Your task to perform on an android device: Open internet settings Image 0: 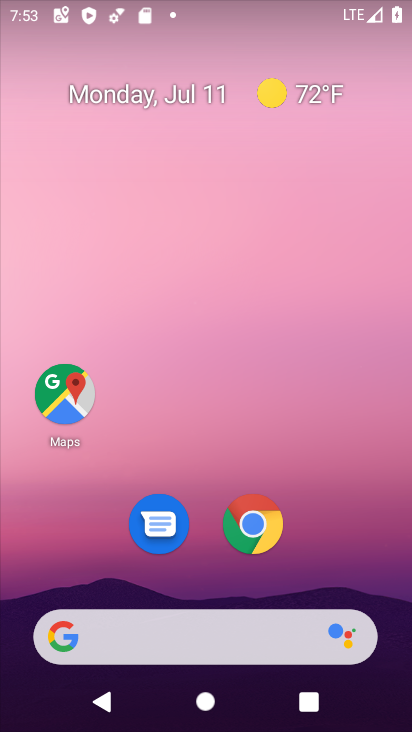
Step 0: drag from (321, 556) to (330, 28)
Your task to perform on an android device: Open internet settings Image 1: 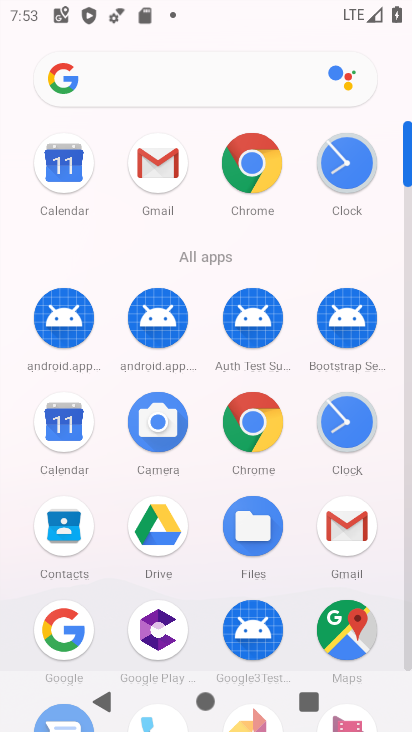
Step 1: drag from (196, 489) to (192, 281)
Your task to perform on an android device: Open internet settings Image 2: 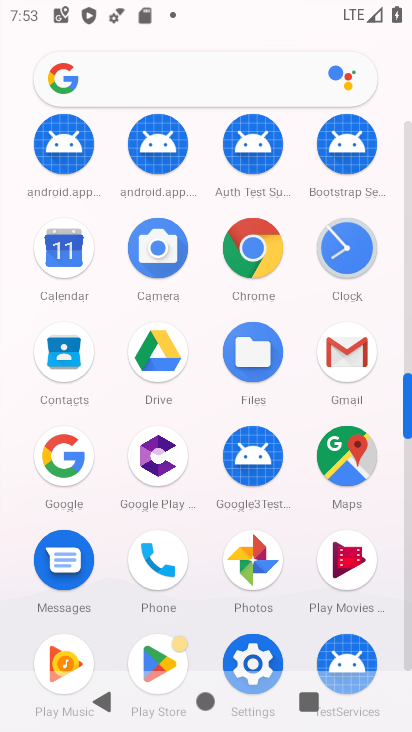
Step 2: click (244, 644)
Your task to perform on an android device: Open internet settings Image 3: 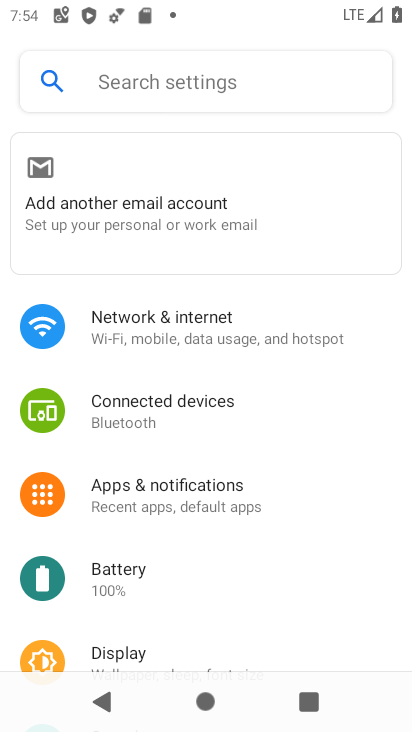
Step 3: click (203, 338)
Your task to perform on an android device: Open internet settings Image 4: 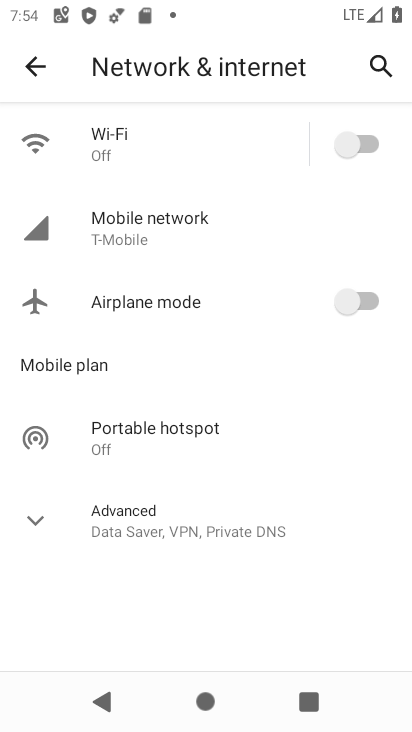
Step 4: task complete